Your task to perform on an android device: open app "LinkedIn" (install if not already installed) Image 0: 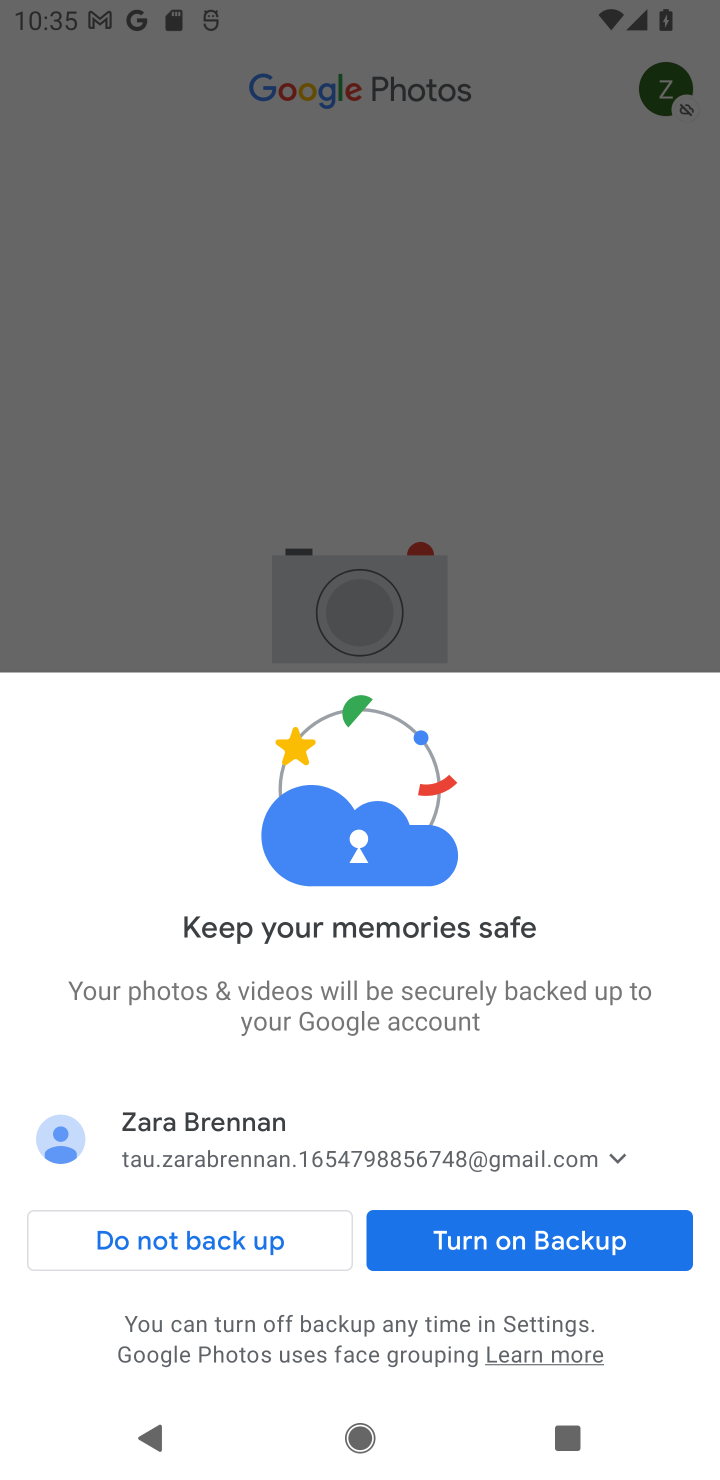
Step 0: press home button
Your task to perform on an android device: open app "LinkedIn" (install if not already installed) Image 1: 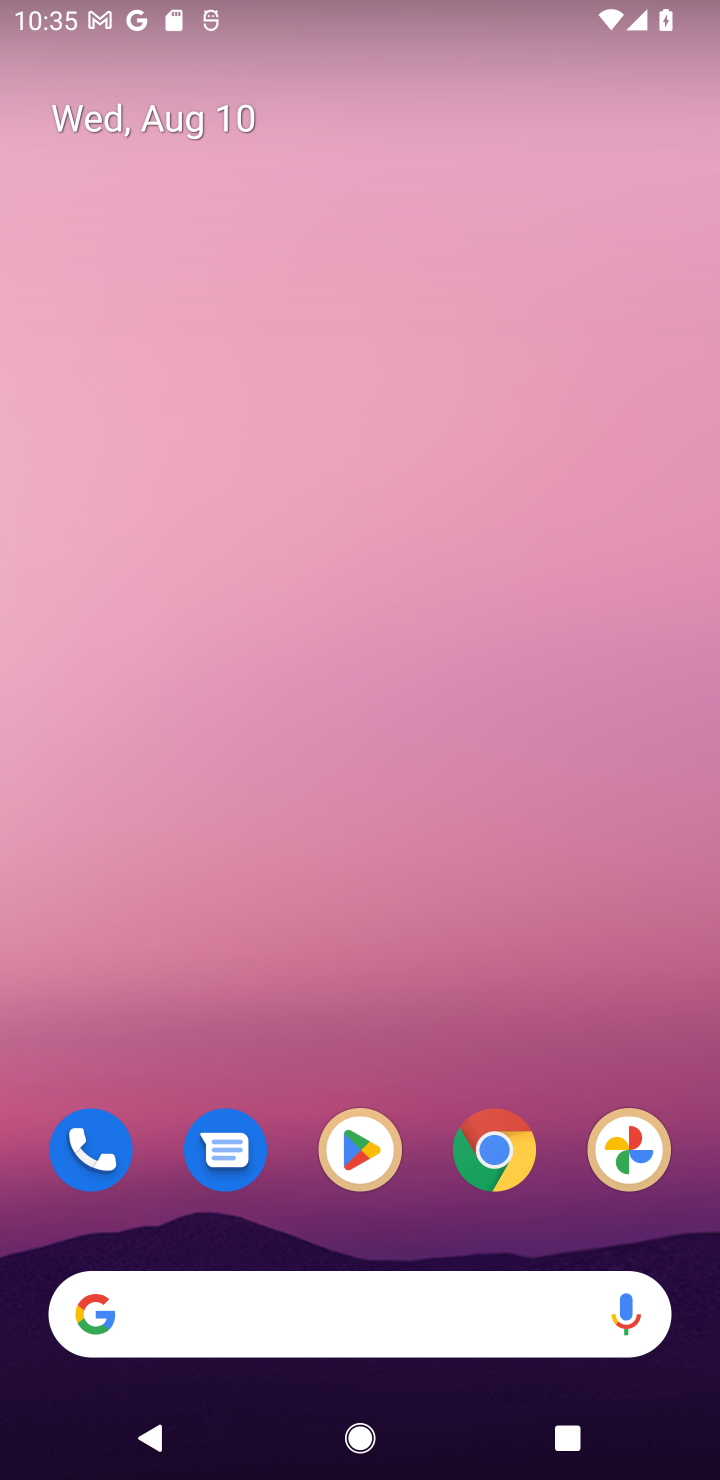
Step 1: click (337, 1154)
Your task to perform on an android device: open app "LinkedIn" (install if not already installed) Image 2: 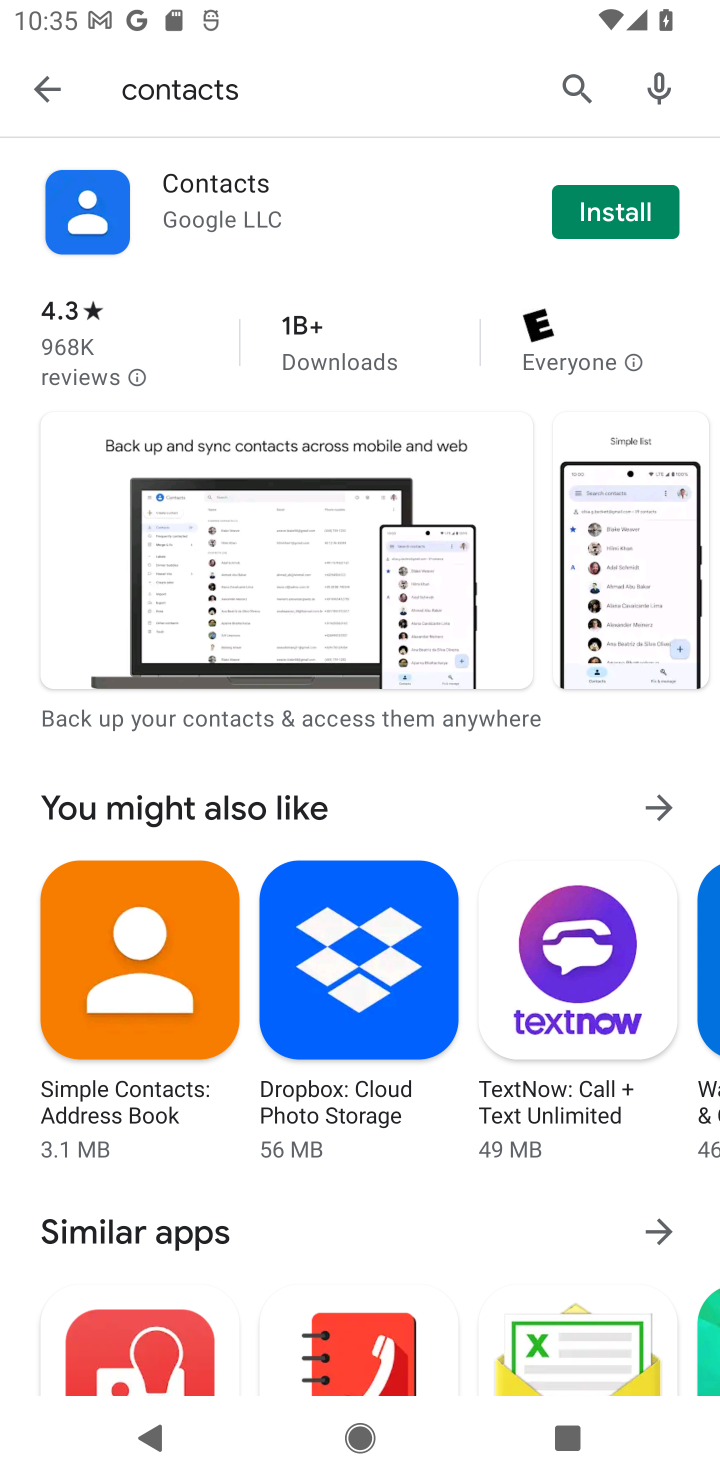
Step 2: click (637, 86)
Your task to perform on an android device: open app "LinkedIn" (install if not already installed) Image 3: 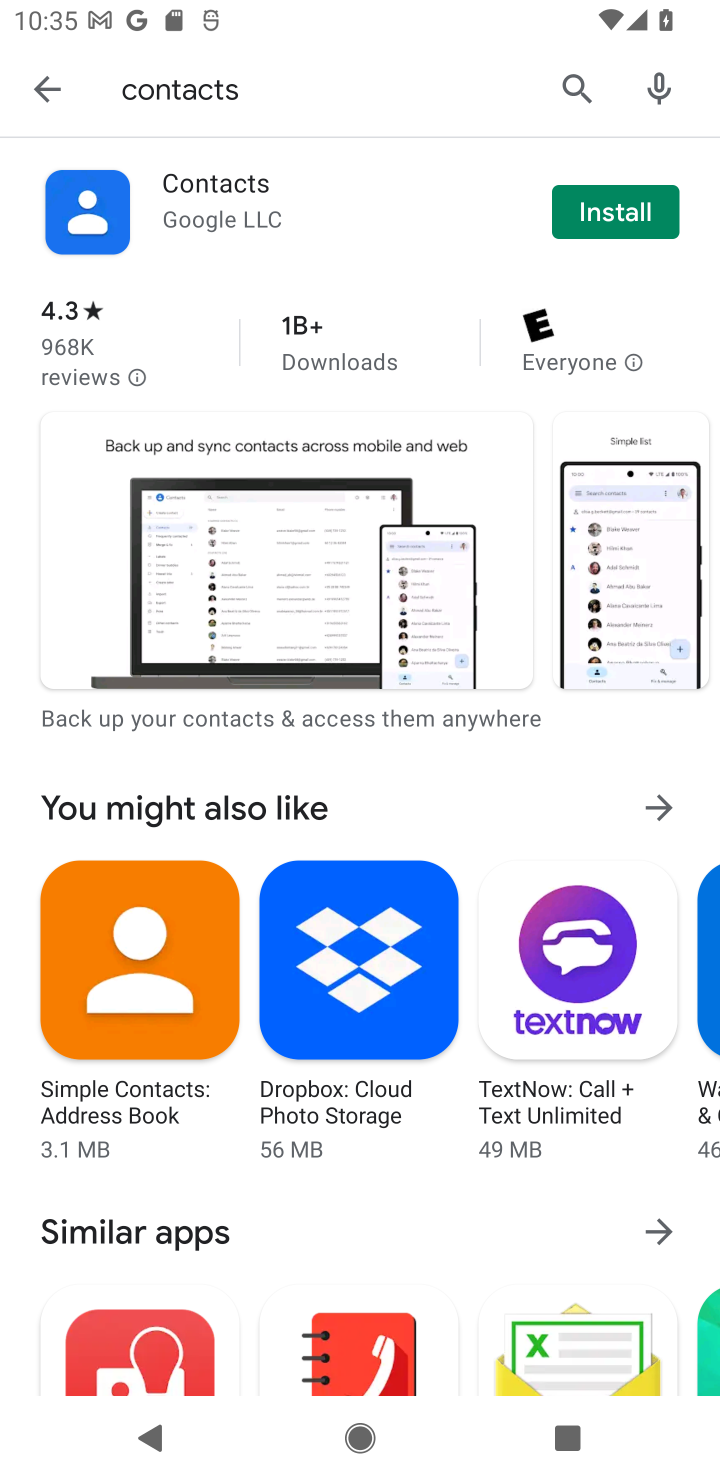
Step 3: click (586, 87)
Your task to perform on an android device: open app "LinkedIn" (install if not already installed) Image 4: 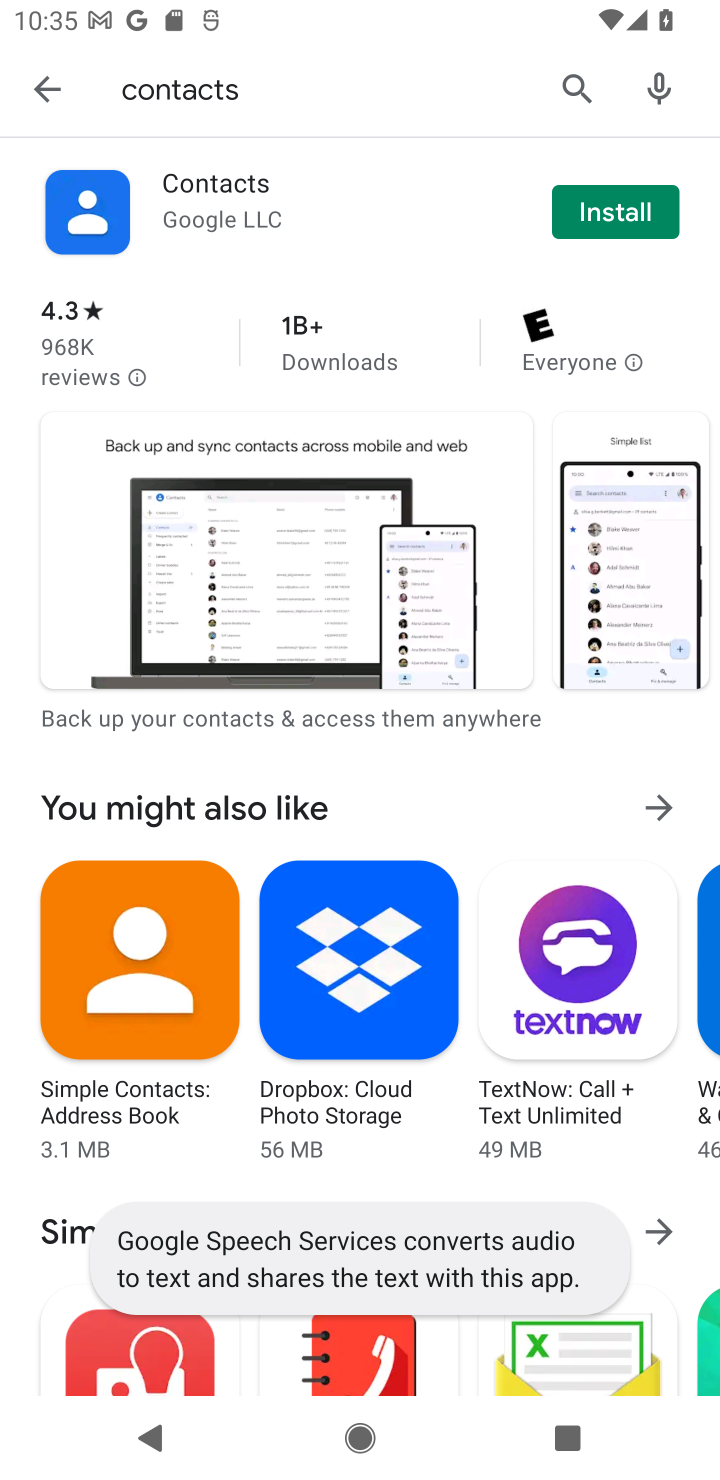
Step 4: click (499, 89)
Your task to perform on an android device: open app "LinkedIn" (install if not already installed) Image 5: 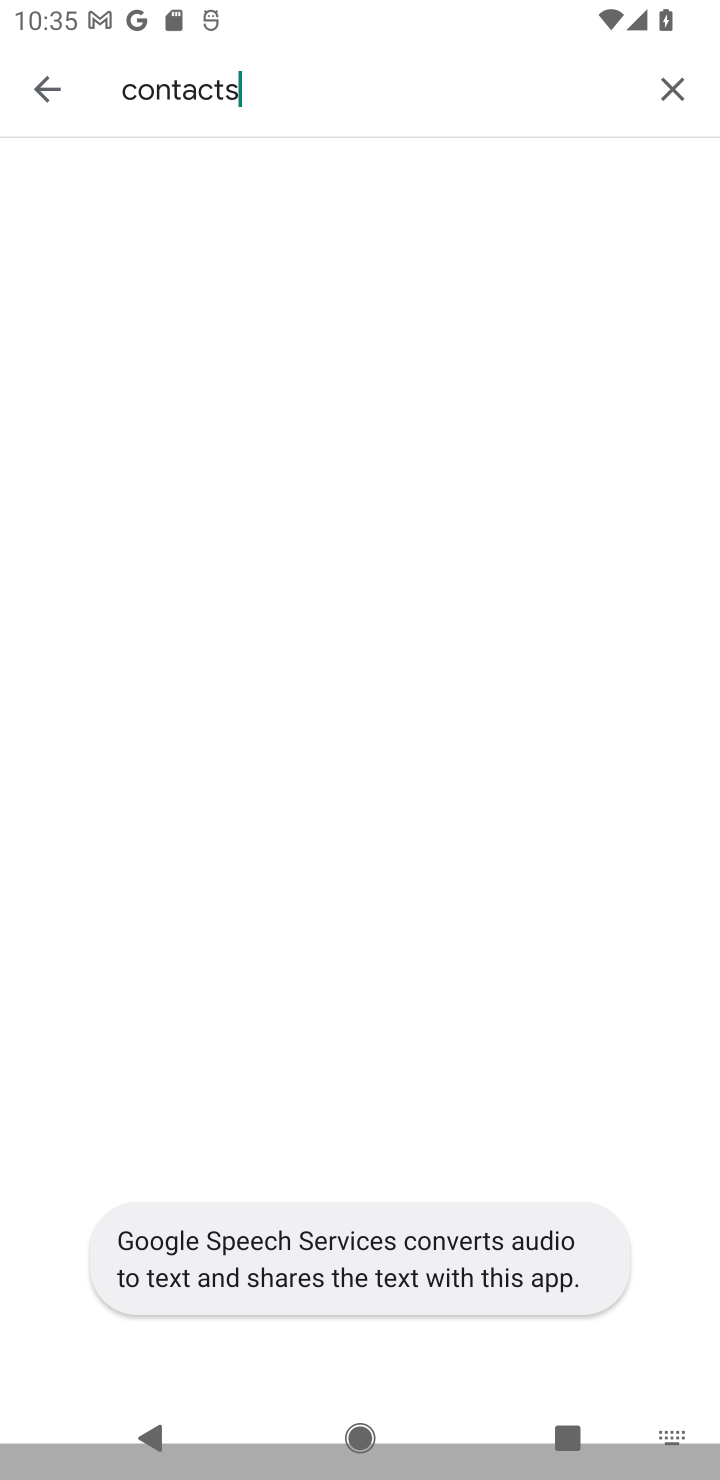
Step 5: click (565, 86)
Your task to perform on an android device: open app "LinkedIn" (install if not already installed) Image 6: 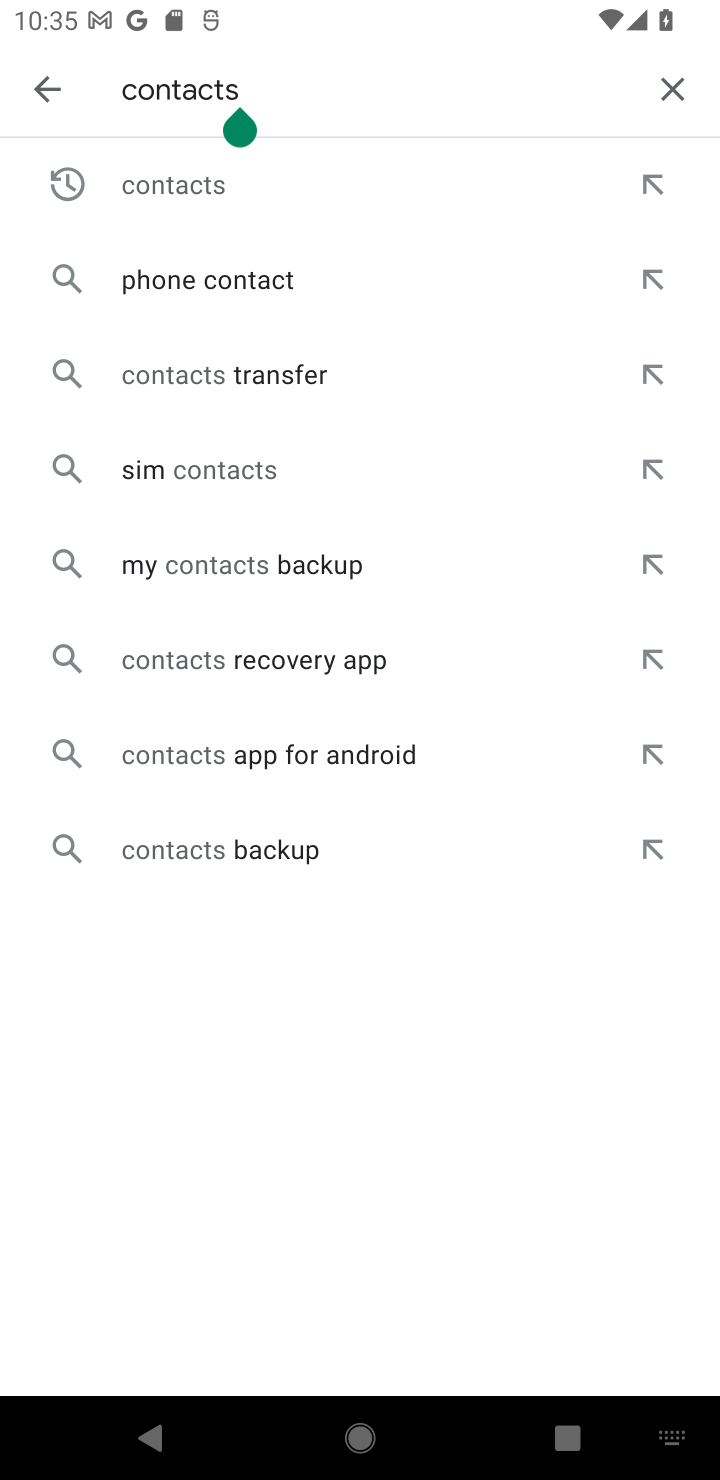
Step 6: click (656, 77)
Your task to perform on an android device: open app "LinkedIn" (install if not already installed) Image 7: 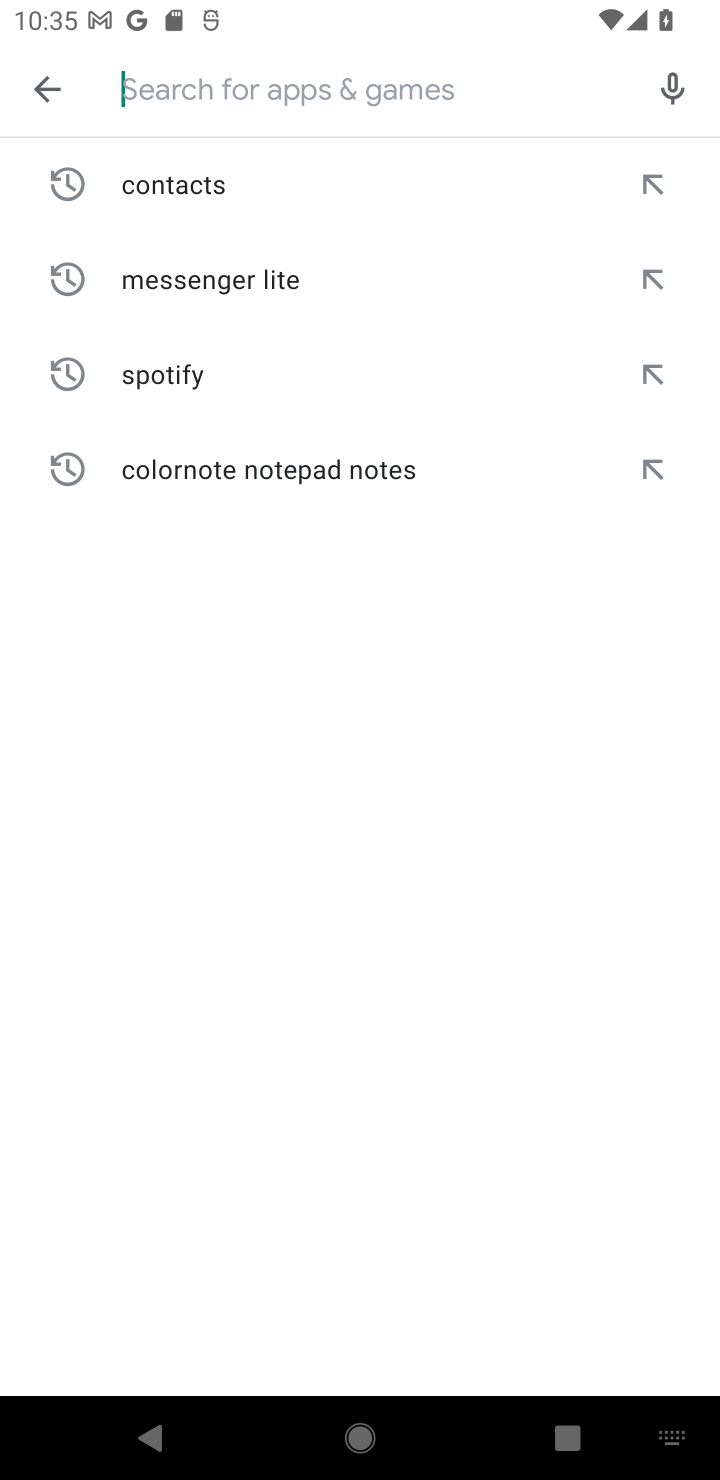
Step 7: type "LinkedIn"
Your task to perform on an android device: open app "LinkedIn" (install if not already installed) Image 8: 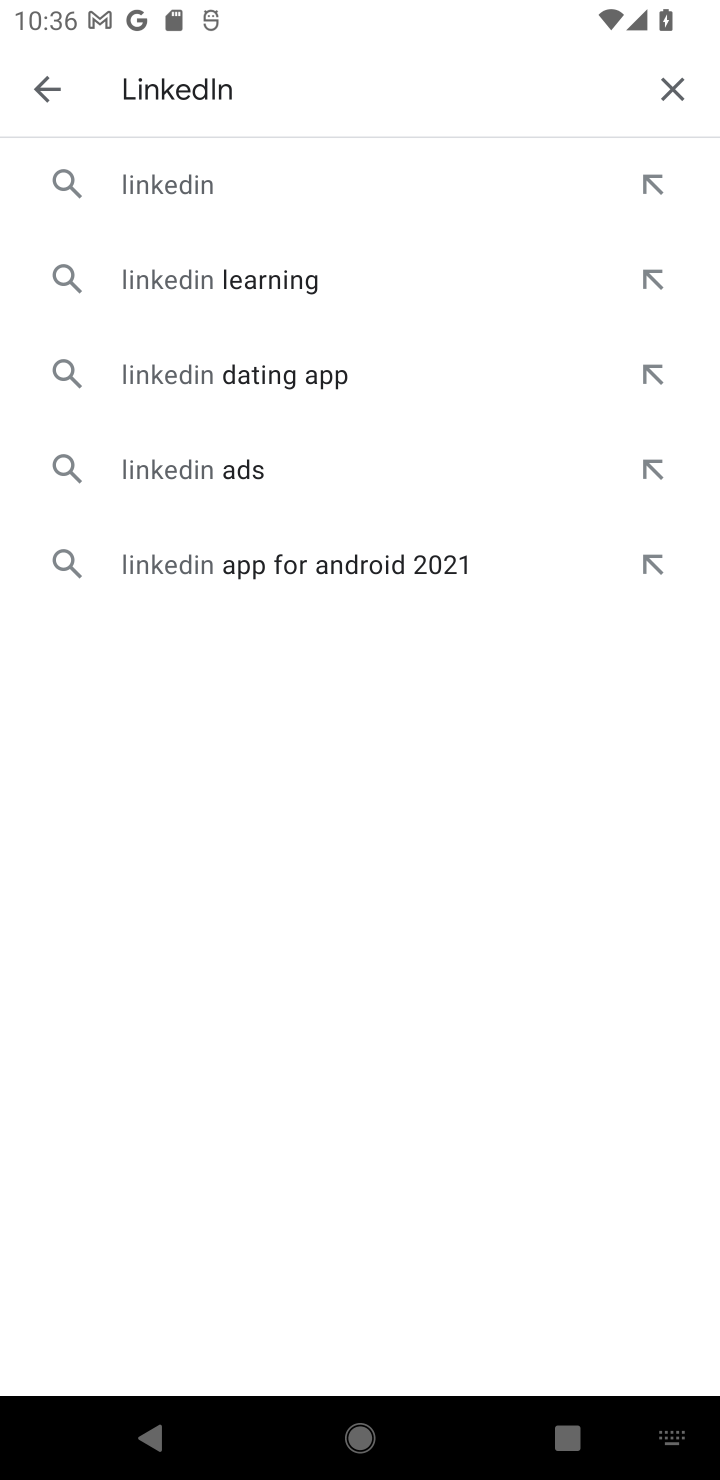
Step 8: click (200, 187)
Your task to perform on an android device: open app "LinkedIn" (install if not already installed) Image 9: 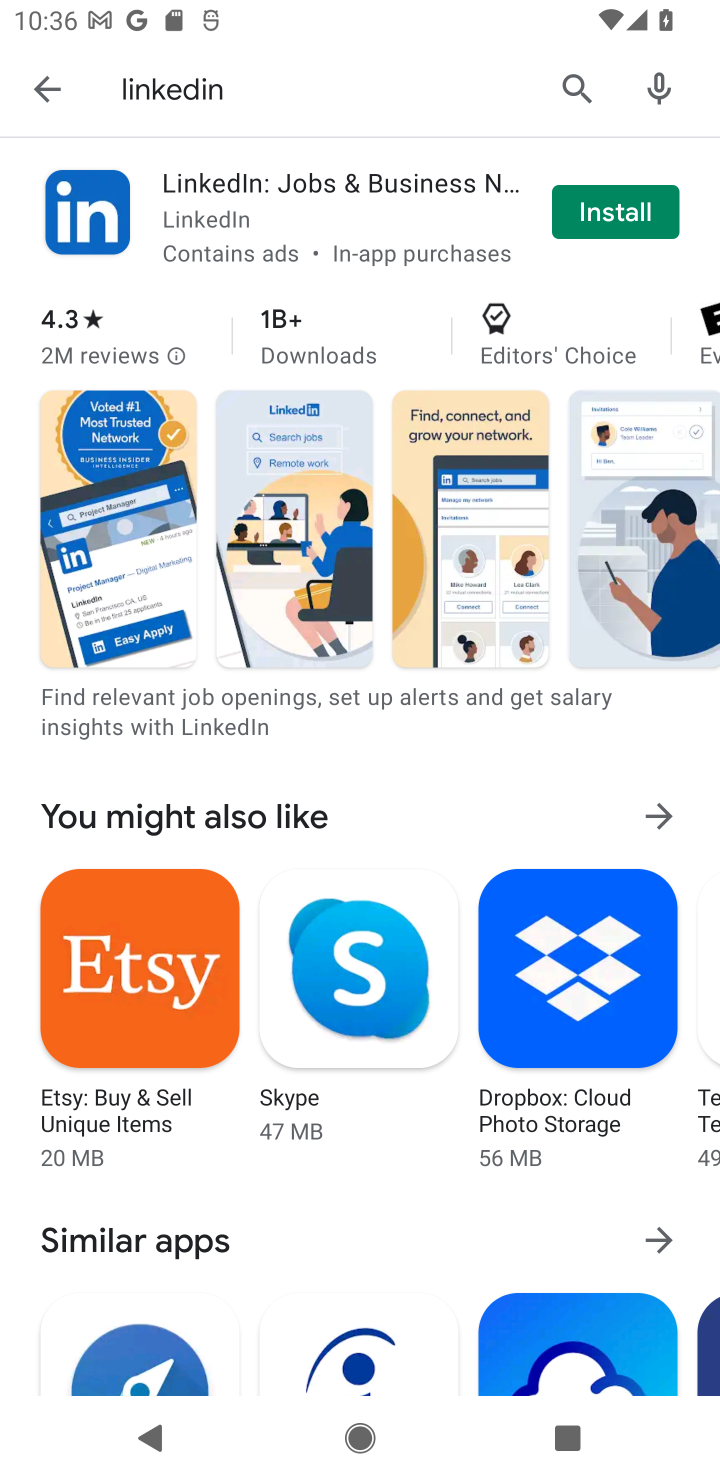
Step 9: click (587, 212)
Your task to perform on an android device: open app "LinkedIn" (install if not already installed) Image 10: 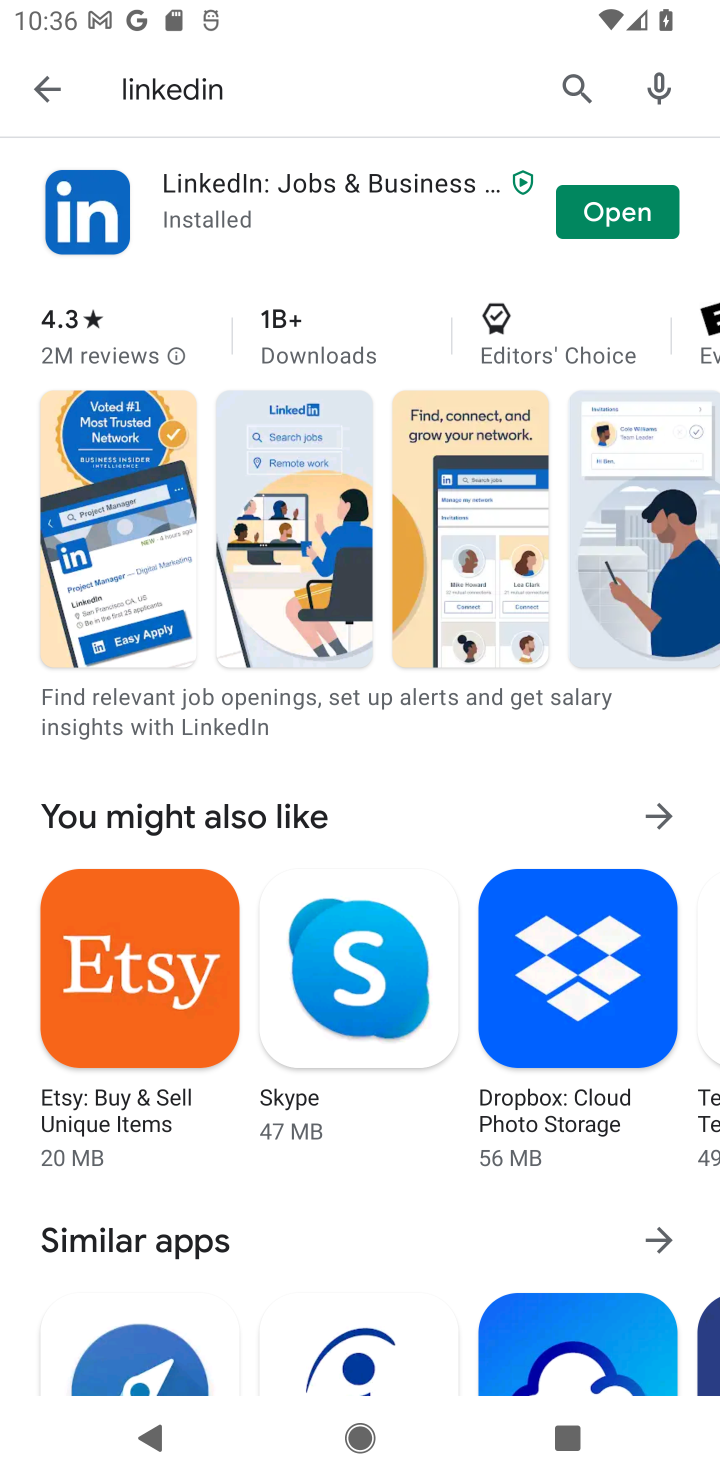
Step 10: click (587, 212)
Your task to perform on an android device: open app "LinkedIn" (install if not already installed) Image 11: 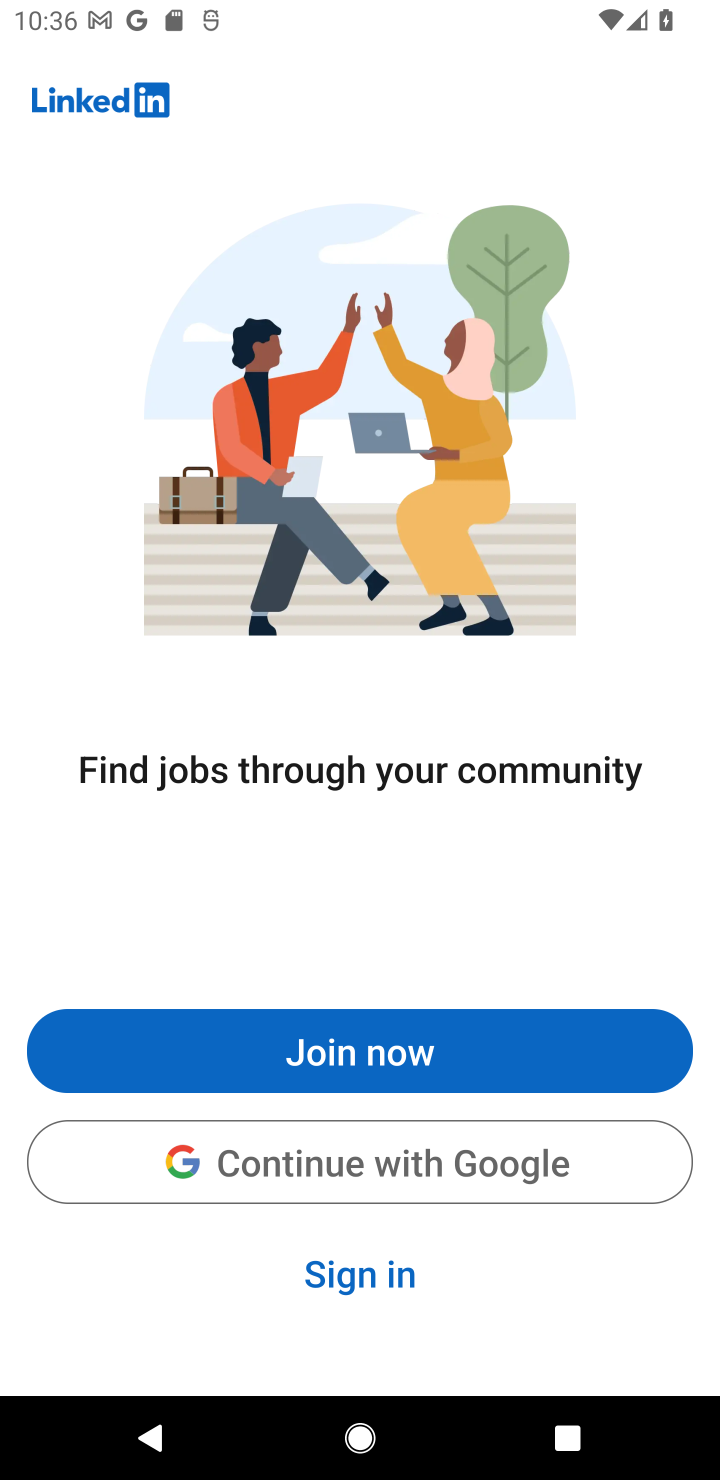
Step 11: task complete